Your task to perform on an android device: Is it going to rain this weekend? Image 0: 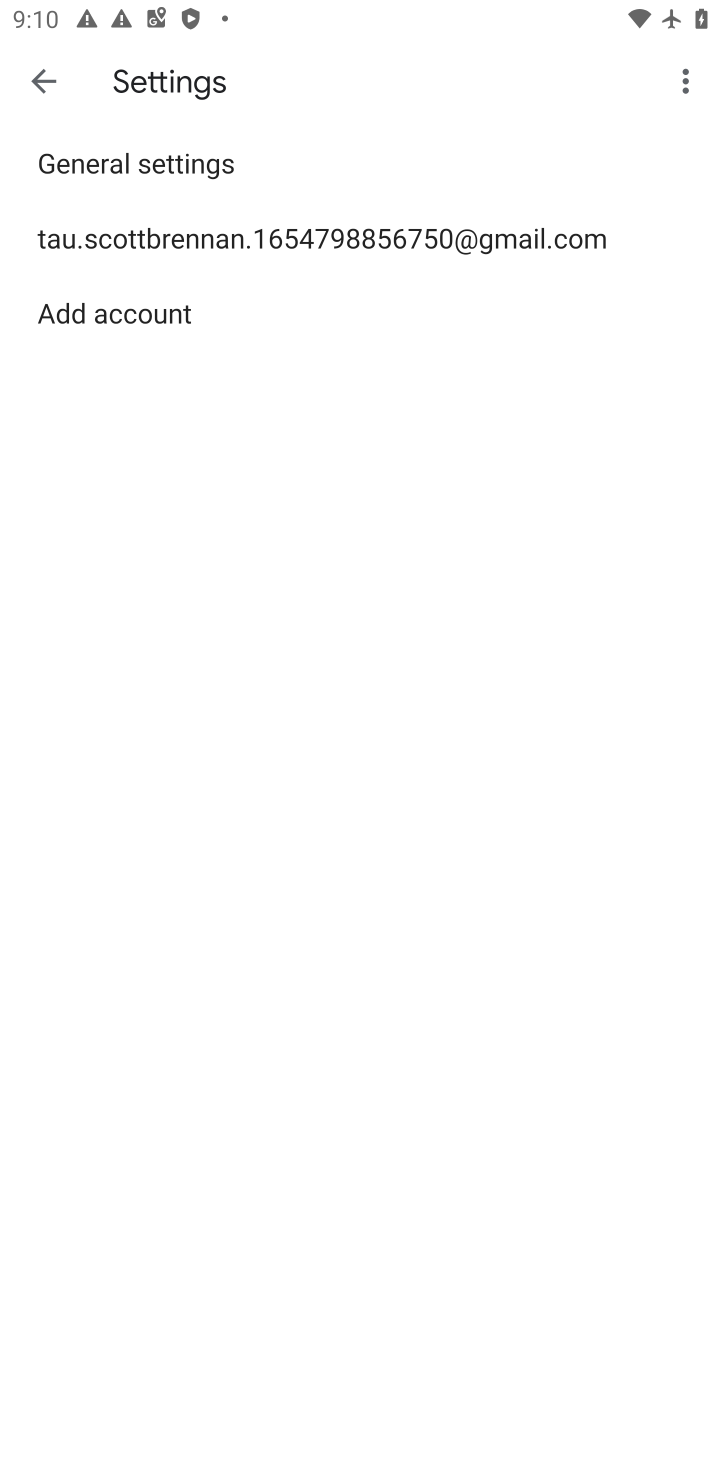
Step 0: press home button
Your task to perform on an android device: Is it going to rain this weekend? Image 1: 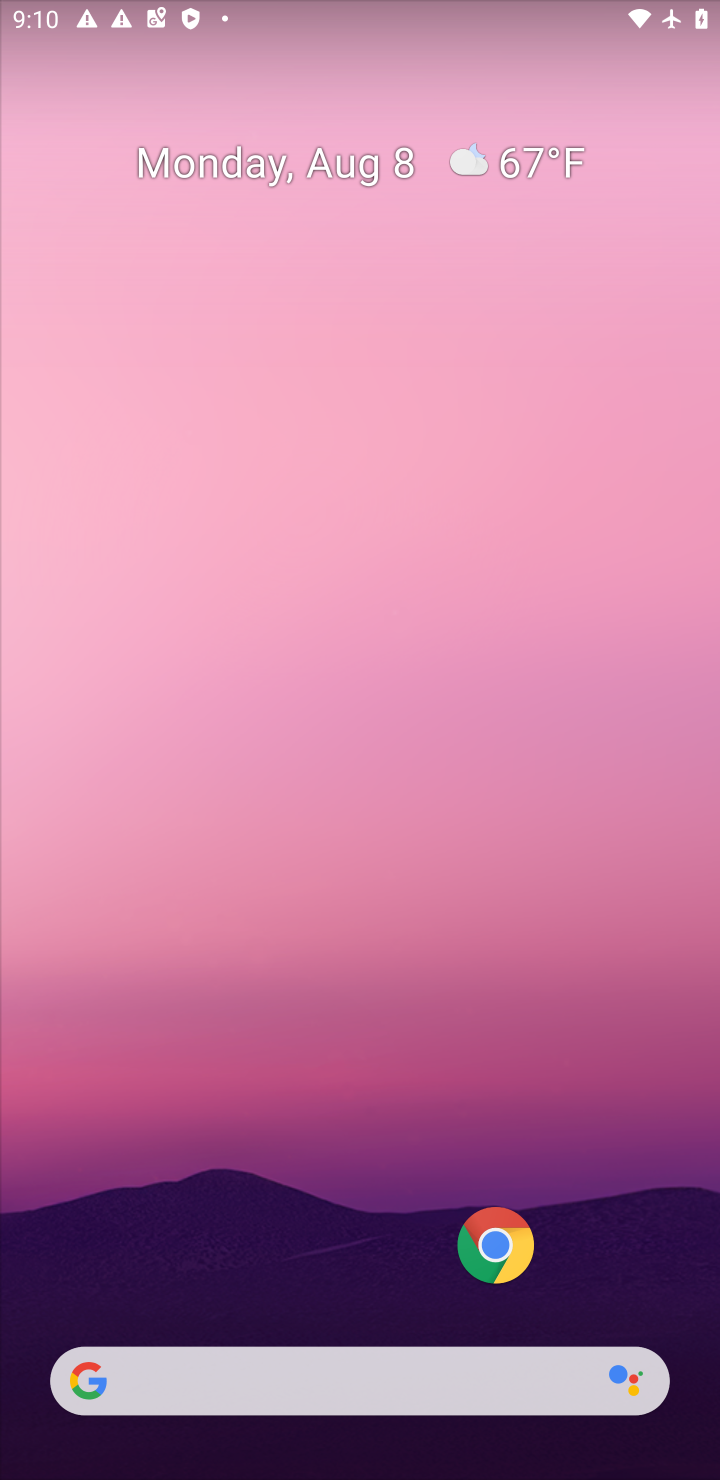
Step 1: click (315, 1381)
Your task to perform on an android device: Is it going to rain this weekend? Image 2: 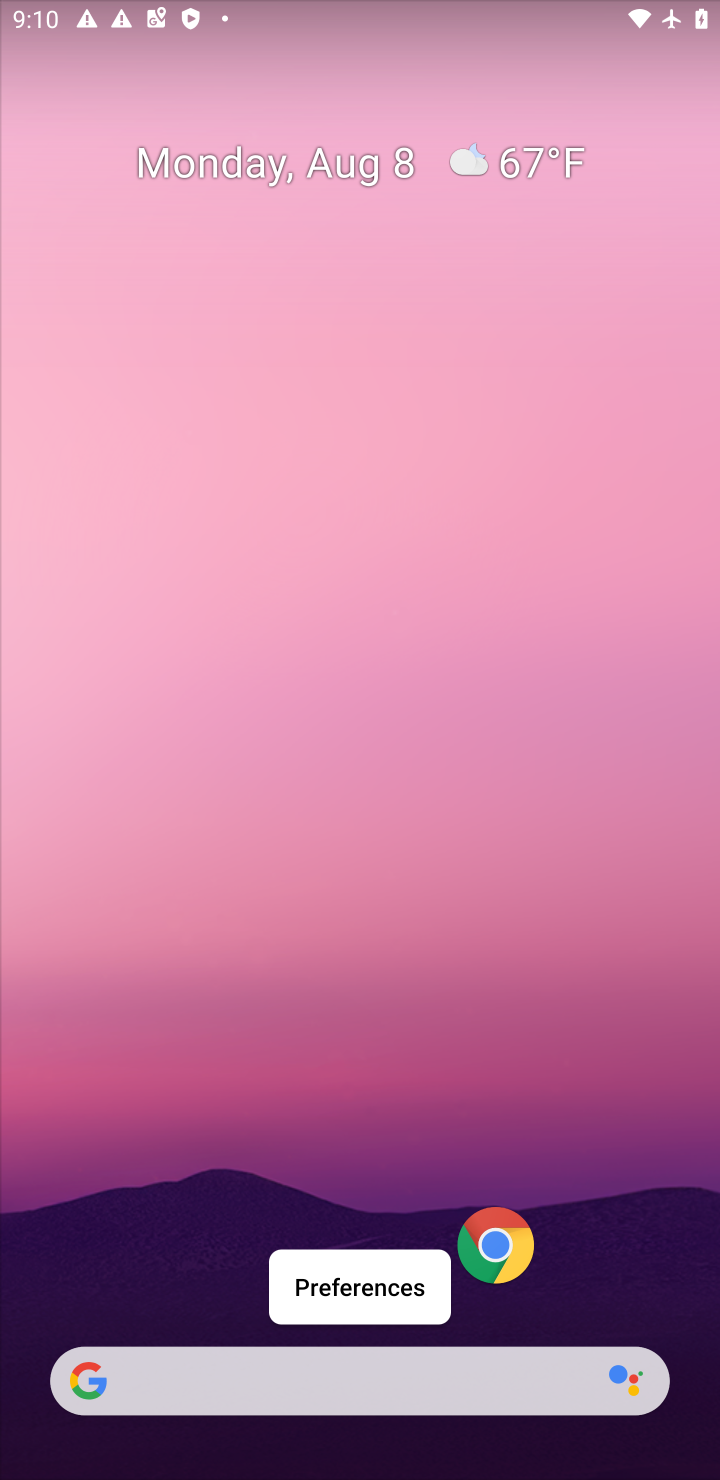
Step 2: click (314, 1379)
Your task to perform on an android device: Is it going to rain this weekend? Image 3: 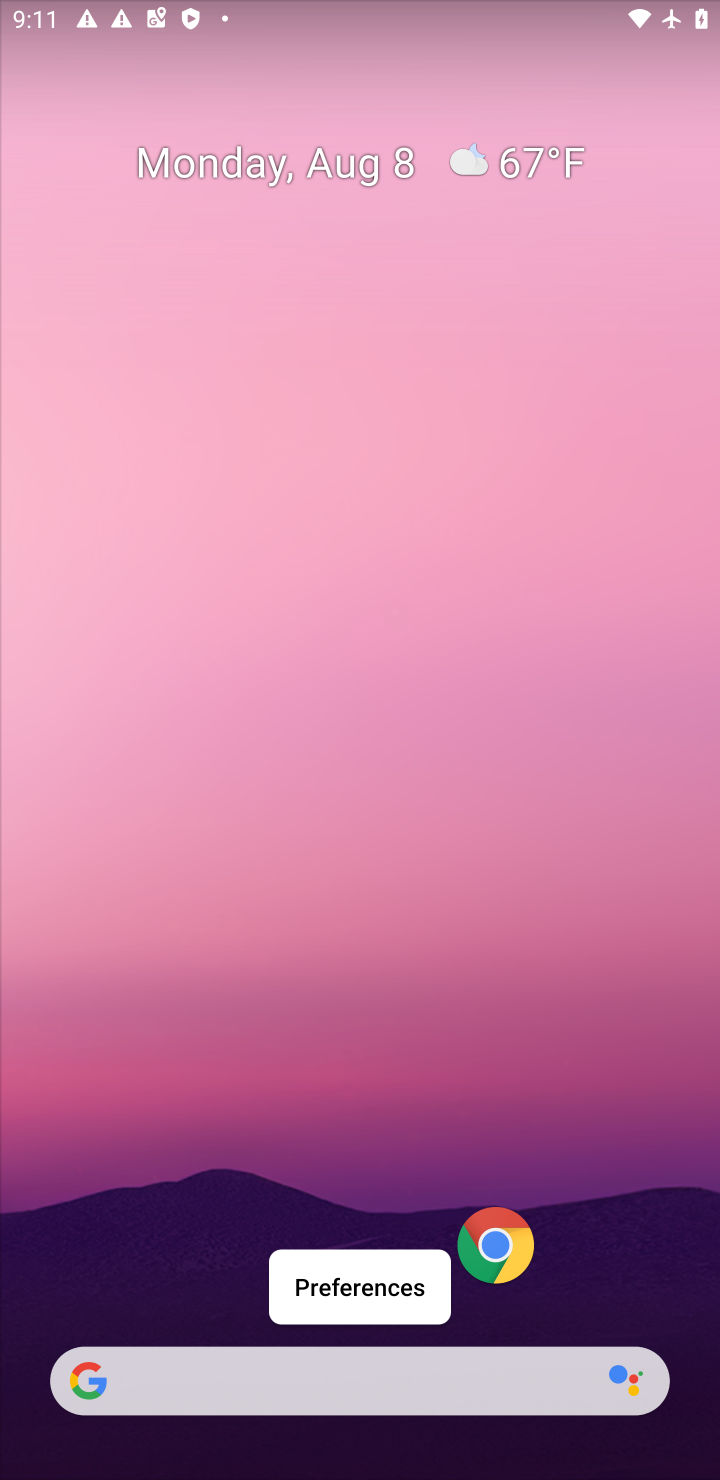
Step 3: click (310, 1363)
Your task to perform on an android device: Is it going to rain this weekend? Image 4: 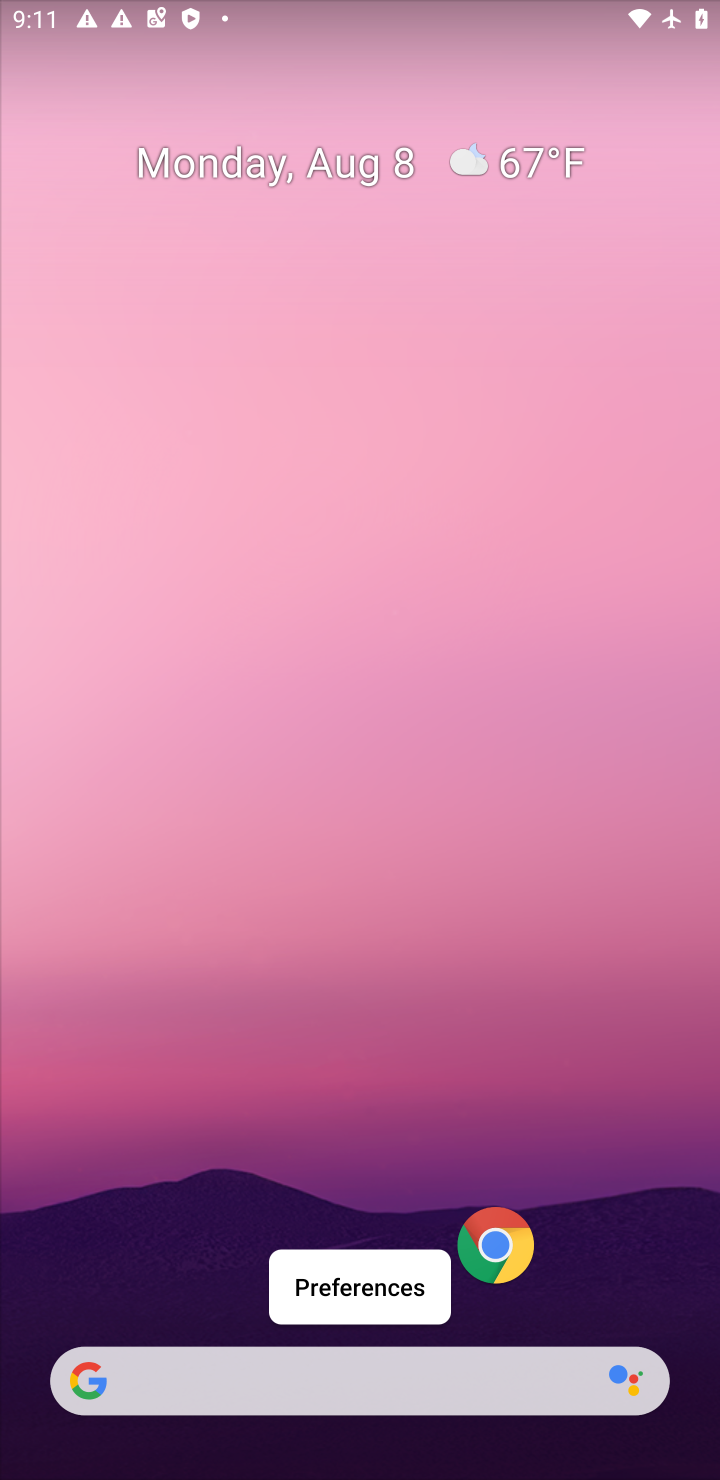
Step 4: click (310, 1363)
Your task to perform on an android device: Is it going to rain this weekend? Image 5: 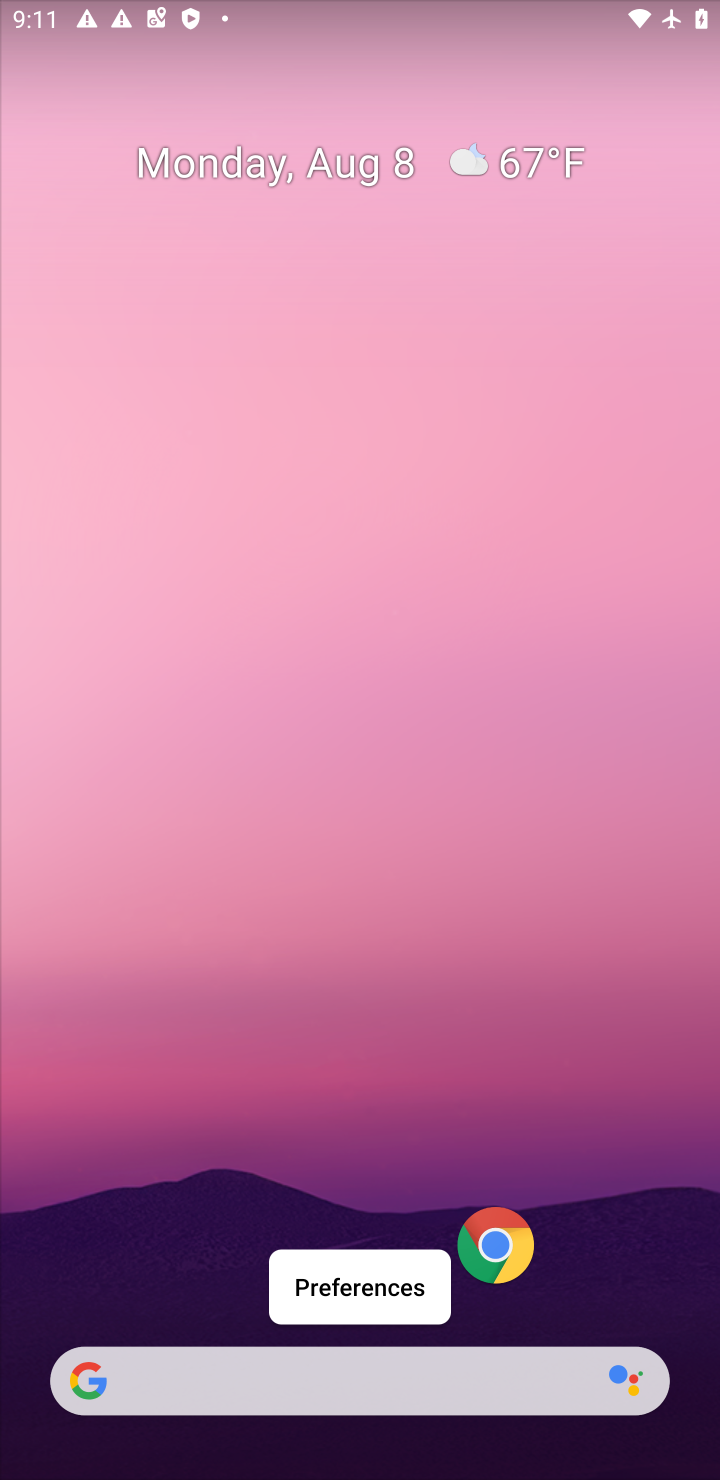
Step 5: click (310, 1368)
Your task to perform on an android device: Is it going to rain this weekend? Image 6: 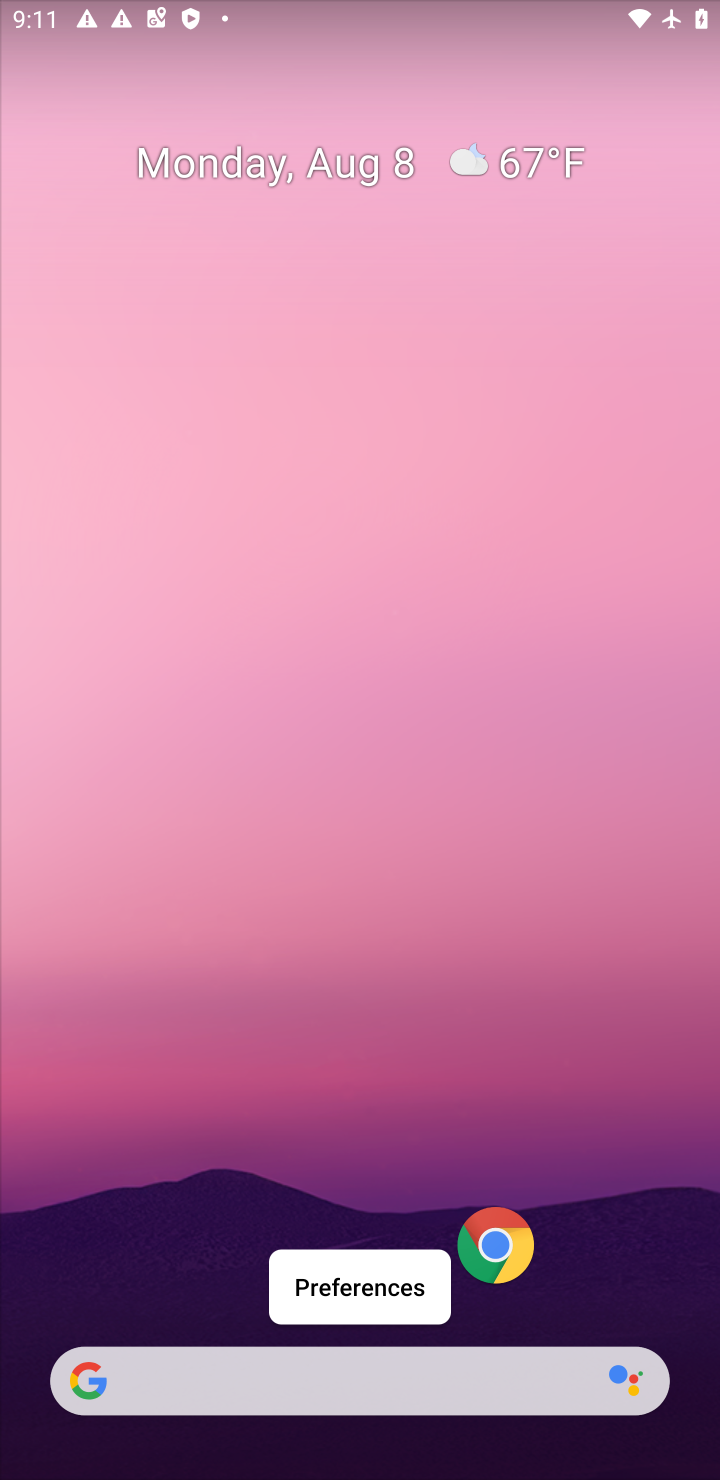
Step 6: click (302, 1370)
Your task to perform on an android device: Is it going to rain this weekend? Image 7: 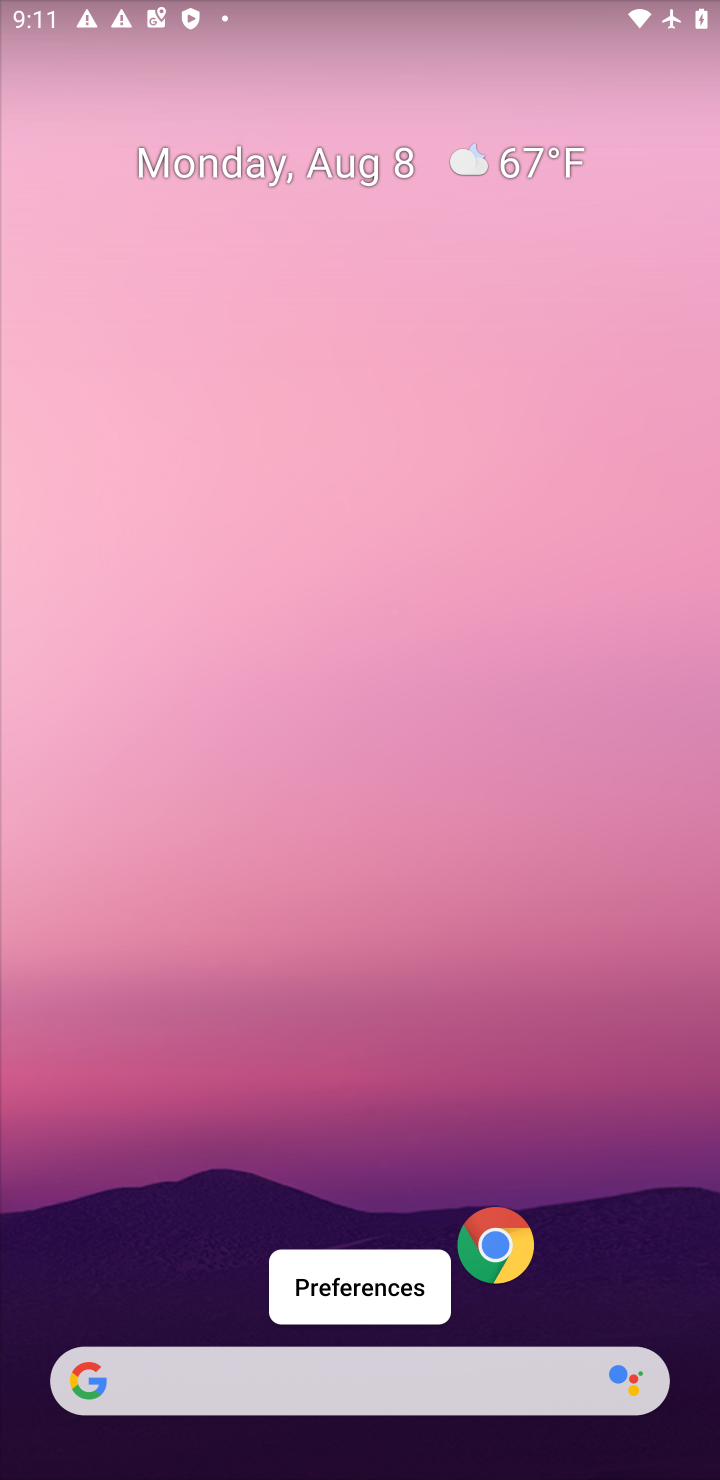
Step 7: click (302, 1370)
Your task to perform on an android device: Is it going to rain this weekend? Image 8: 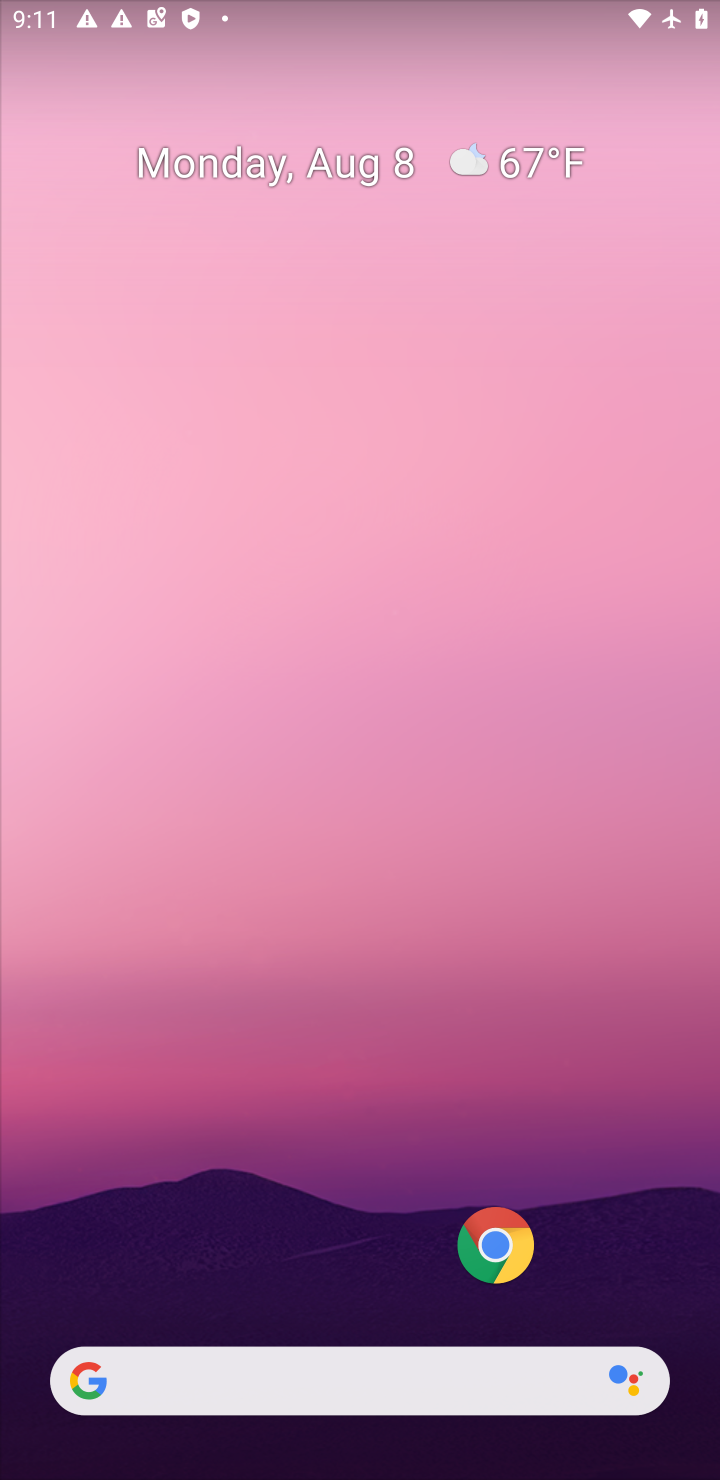
Step 8: click (302, 1370)
Your task to perform on an android device: Is it going to rain this weekend? Image 9: 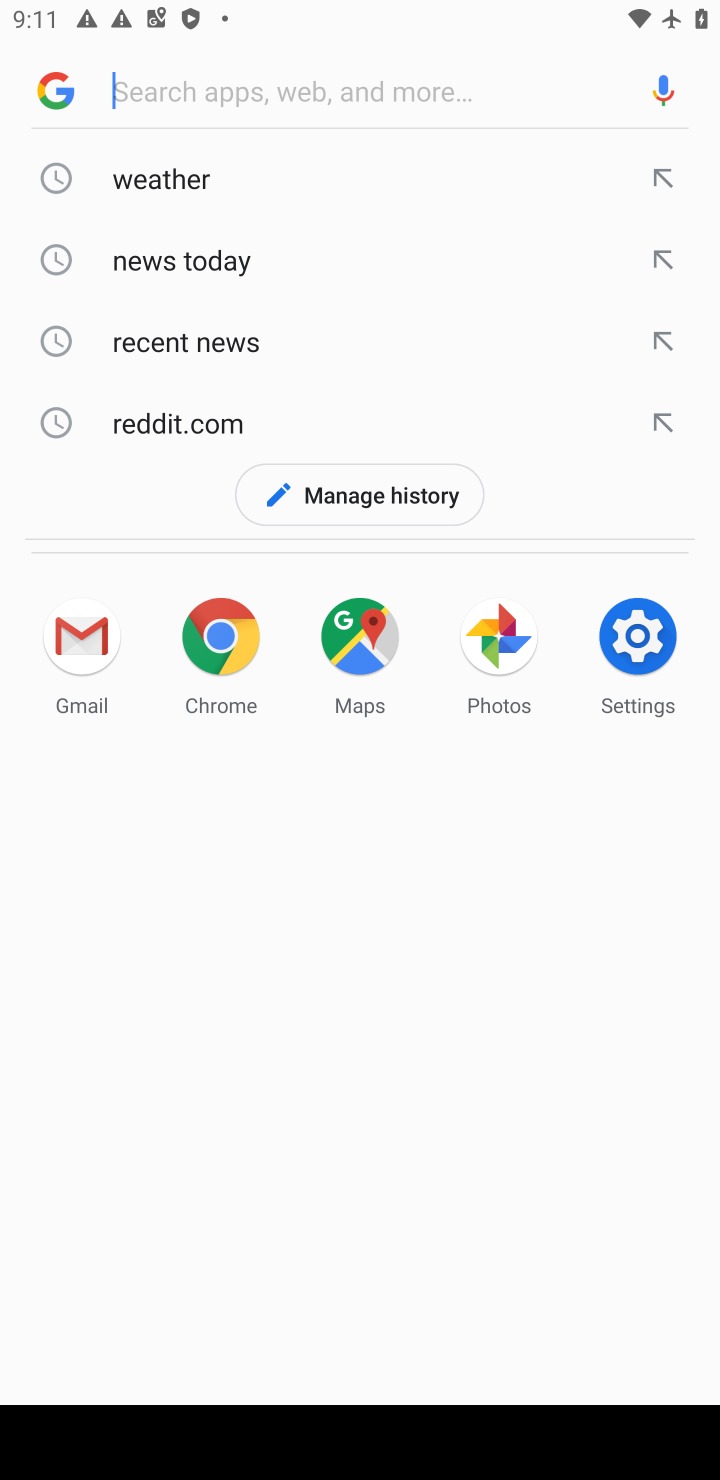
Step 9: click (161, 185)
Your task to perform on an android device: Is it going to rain this weekend? Image 10: 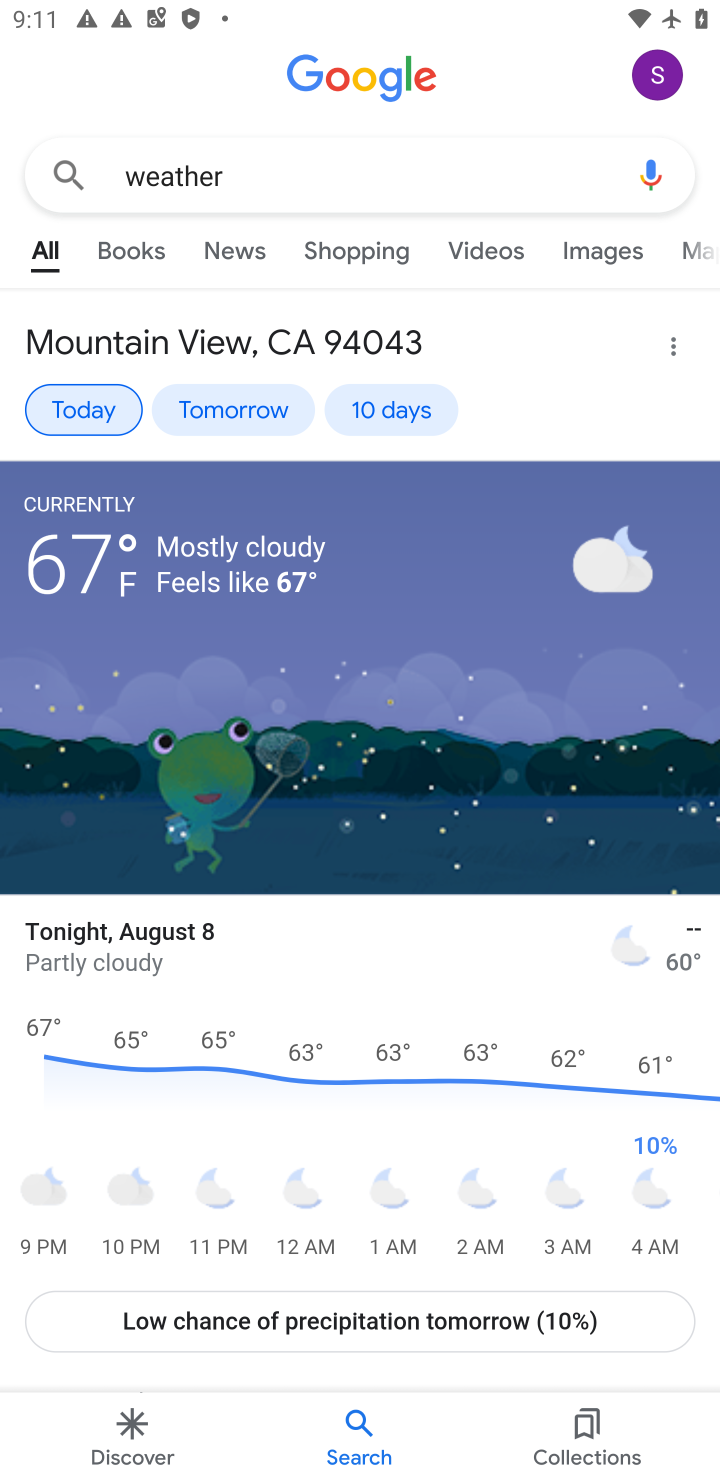
Step 10: click (380, 412)
Your task to perform on an android device: Is it going to rain this weekend? Image 11: 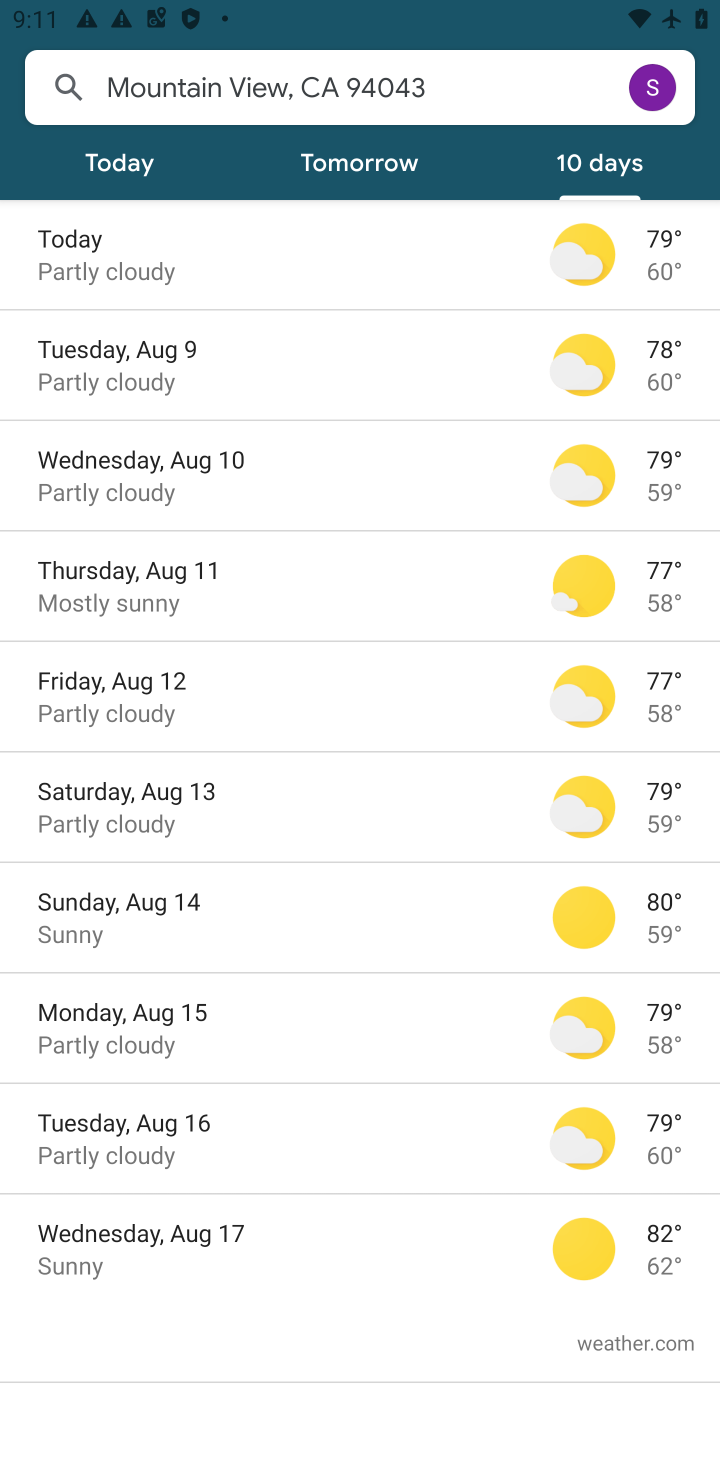
Step 11: task complete